Your task to perform on an android device: find photos in the google photos app Image 0: 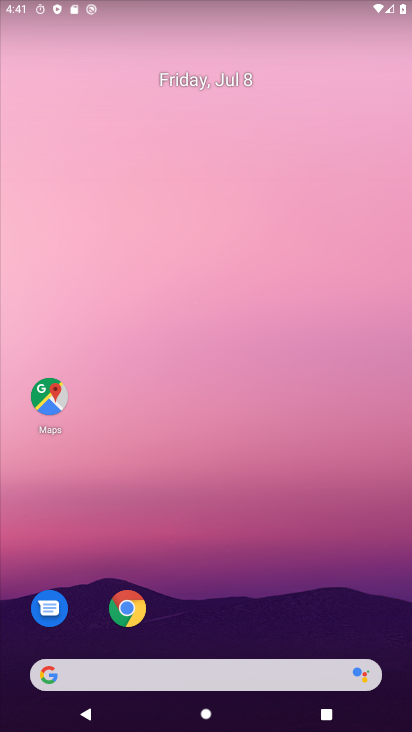
Step 0: press home button
Your task to perform on an android device: find photos in the google photos app Image 1: 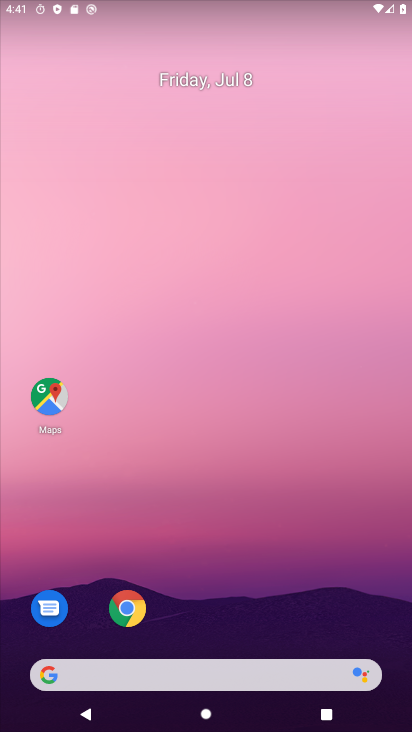
Step 1: drag from (221, 595) to (205, 143)
Your task to perform on an android device: find photos in the google photos app Image 2: 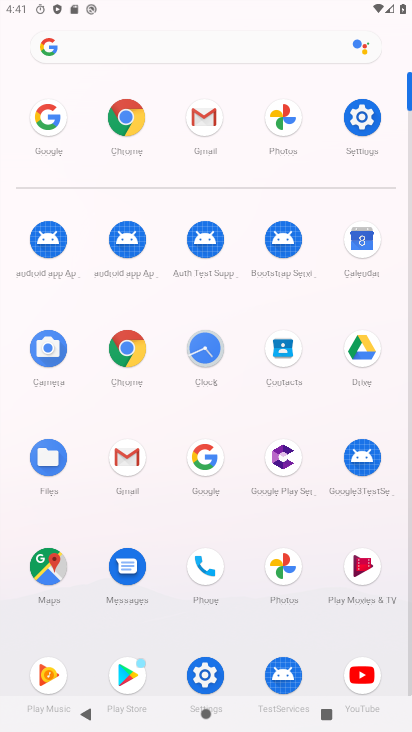
Step 2: click (270, 557)
Your task to perform on an android device: find photos in the google photos app Image 3: 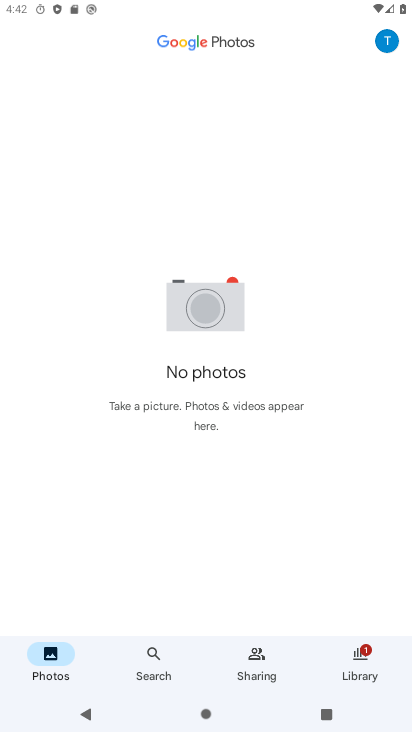
Step 3: click (51, 652)
Your task to perform on an android device: find photos in the google photos app Image 4: 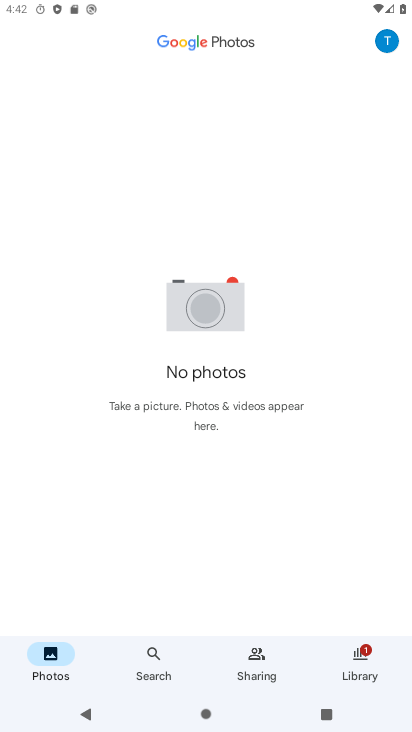
Step 4: task complete